Your task to perform on an android device: turn off translation in the chrome app Image 0: 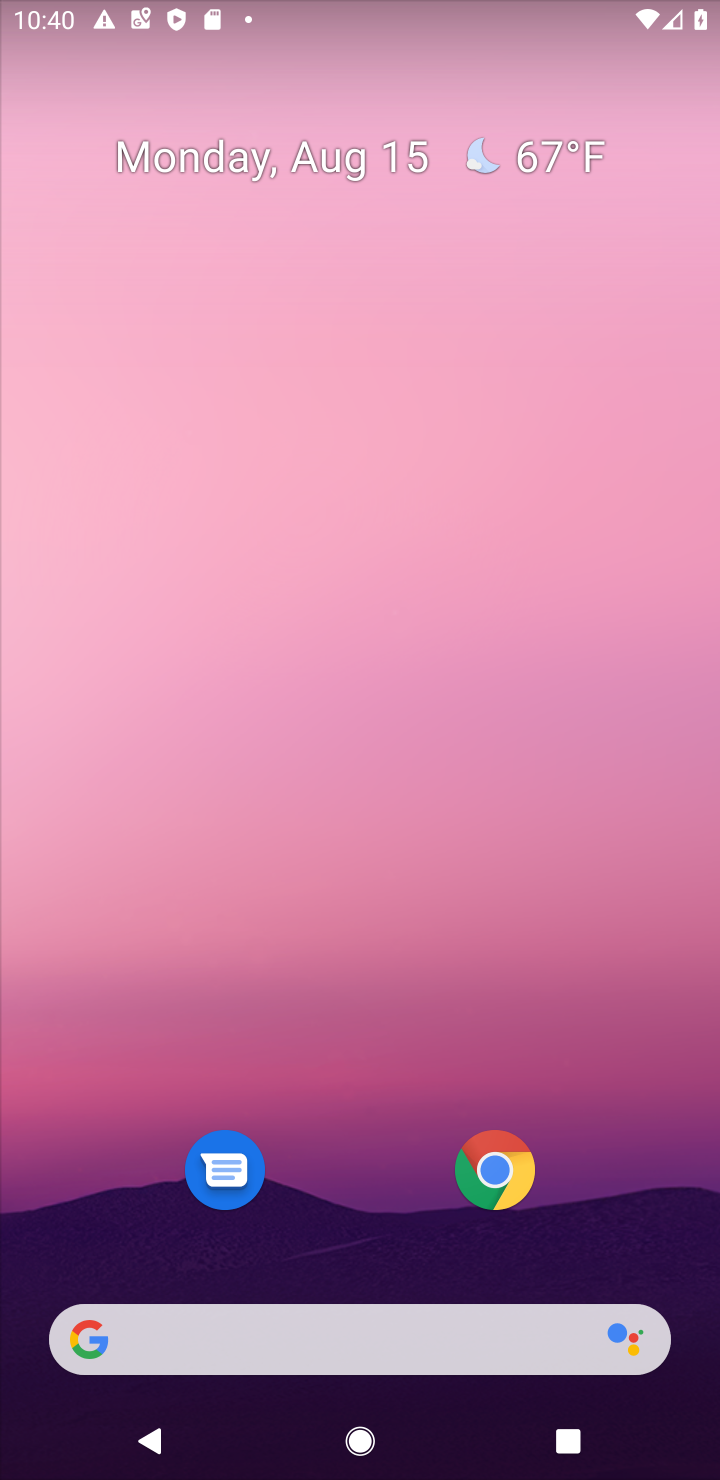
Step 0: drag from (365, 1254) to (387, 153)
Your task to perform on an android device: turn off translation in the chrome app Image 1: 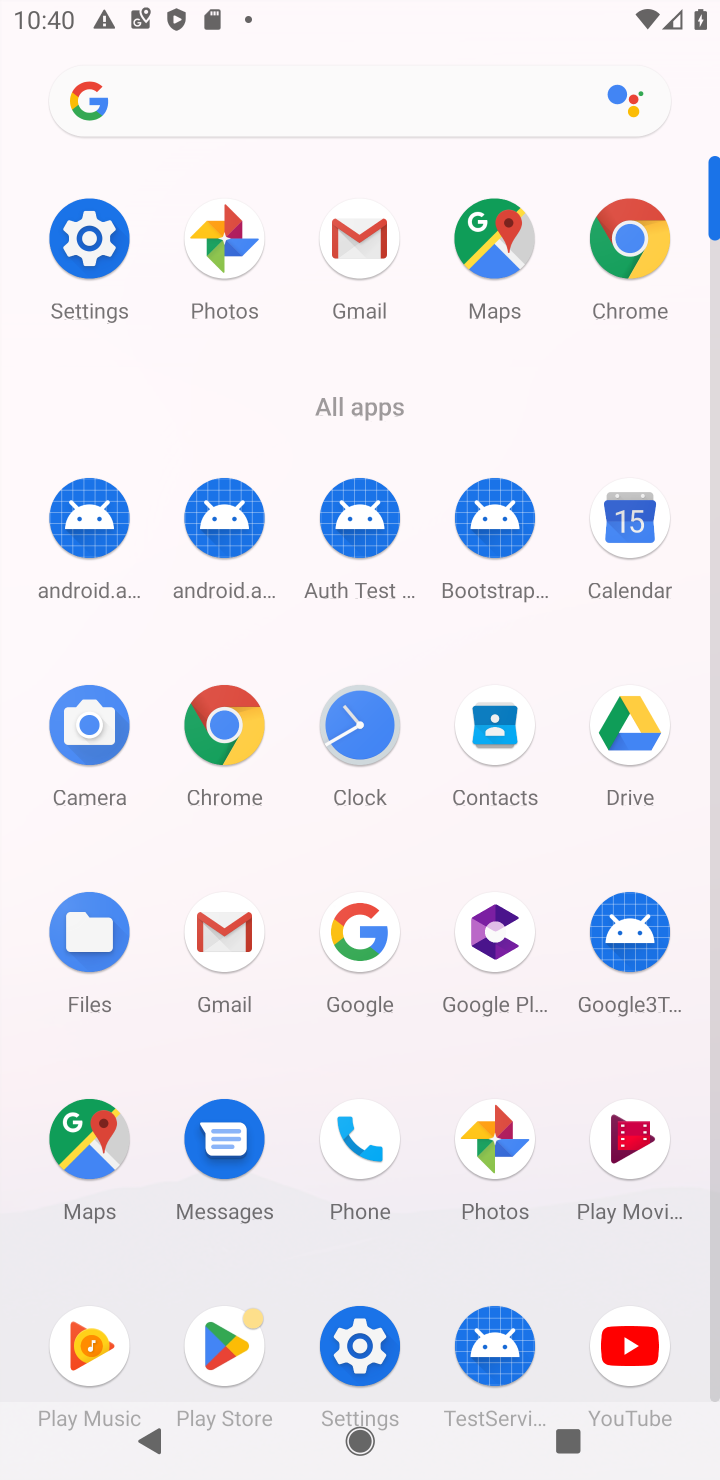
Step 1: click (215, 713)
Your task to perform on an android device: turn off translation in the chrome app Image 2: 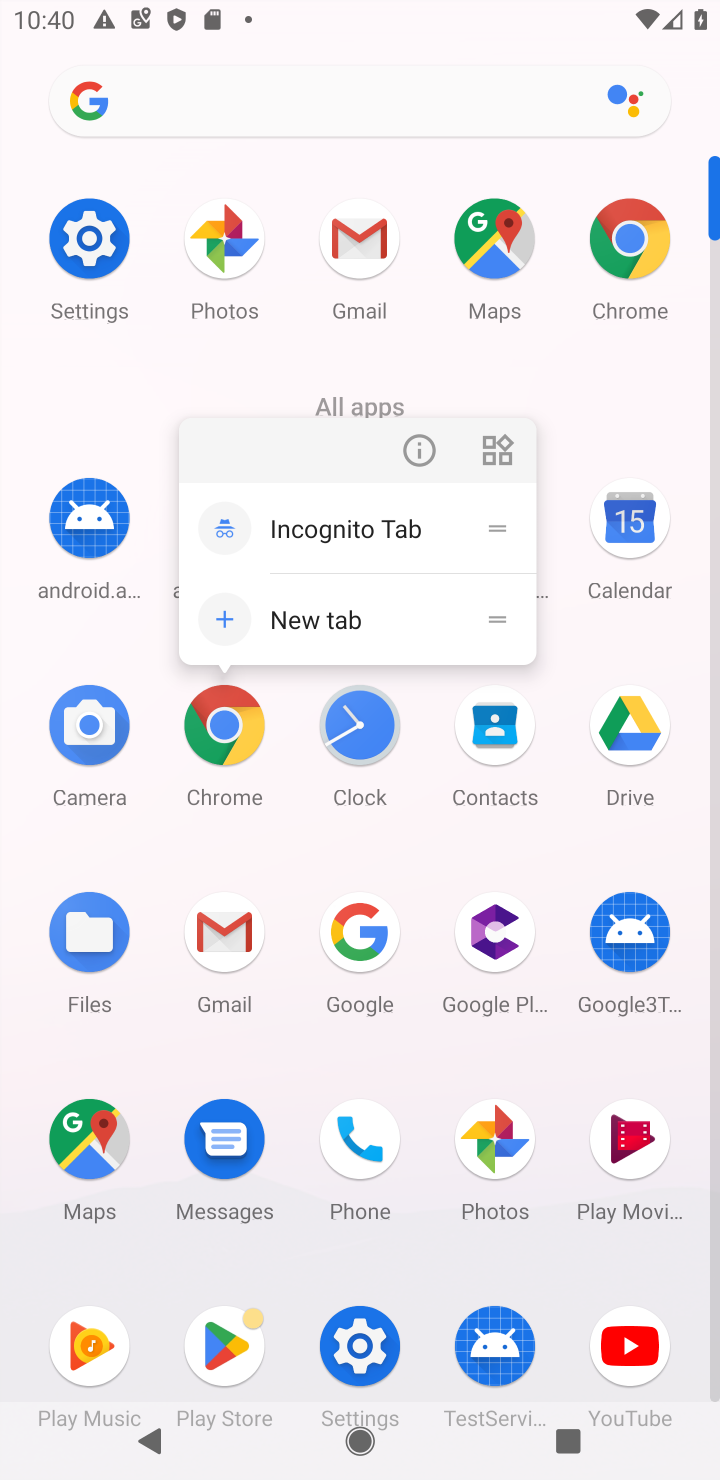
Step 2: click (218, 715)
Your task to perform on an android device: turn off translation in the chrome app Image 3: 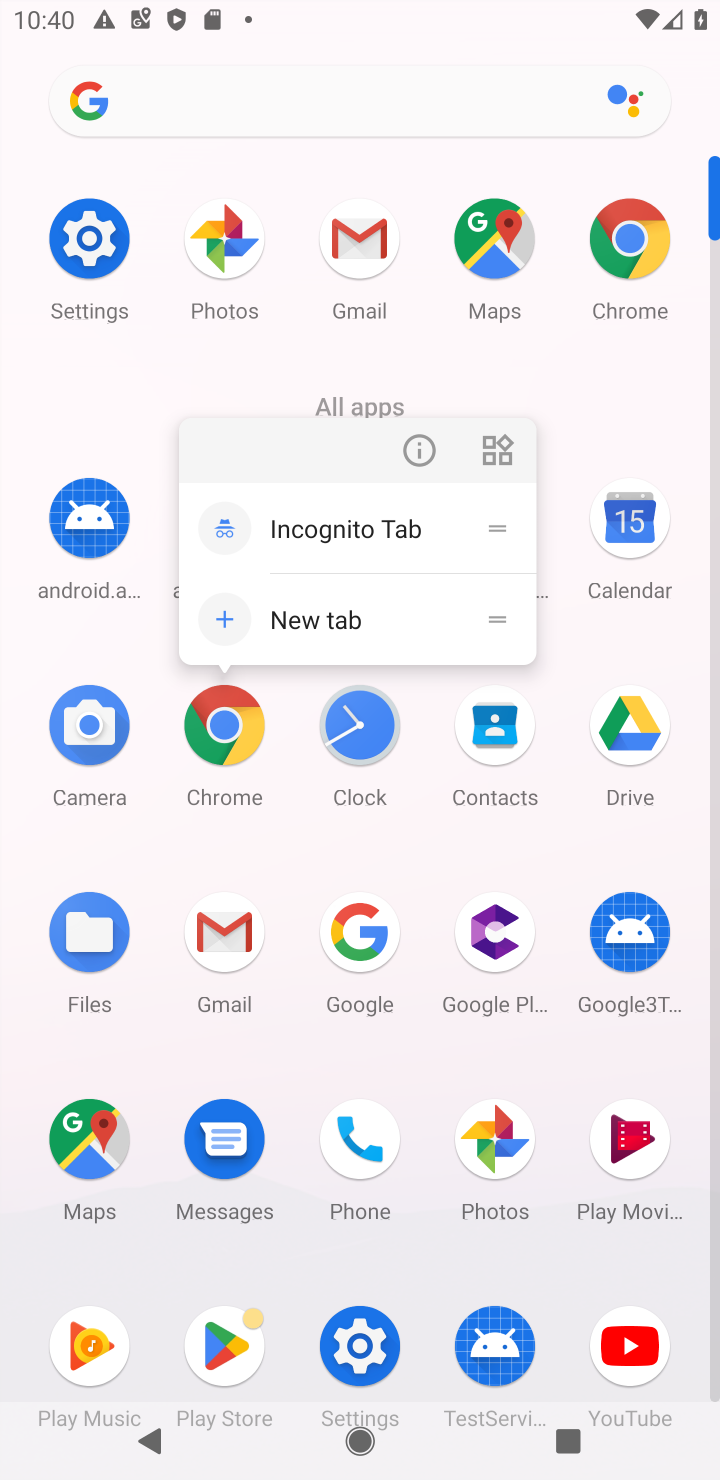
Step 3: click (220, 714)
Your task to perform on an android device: turn off translation in the chrome app Image 4: 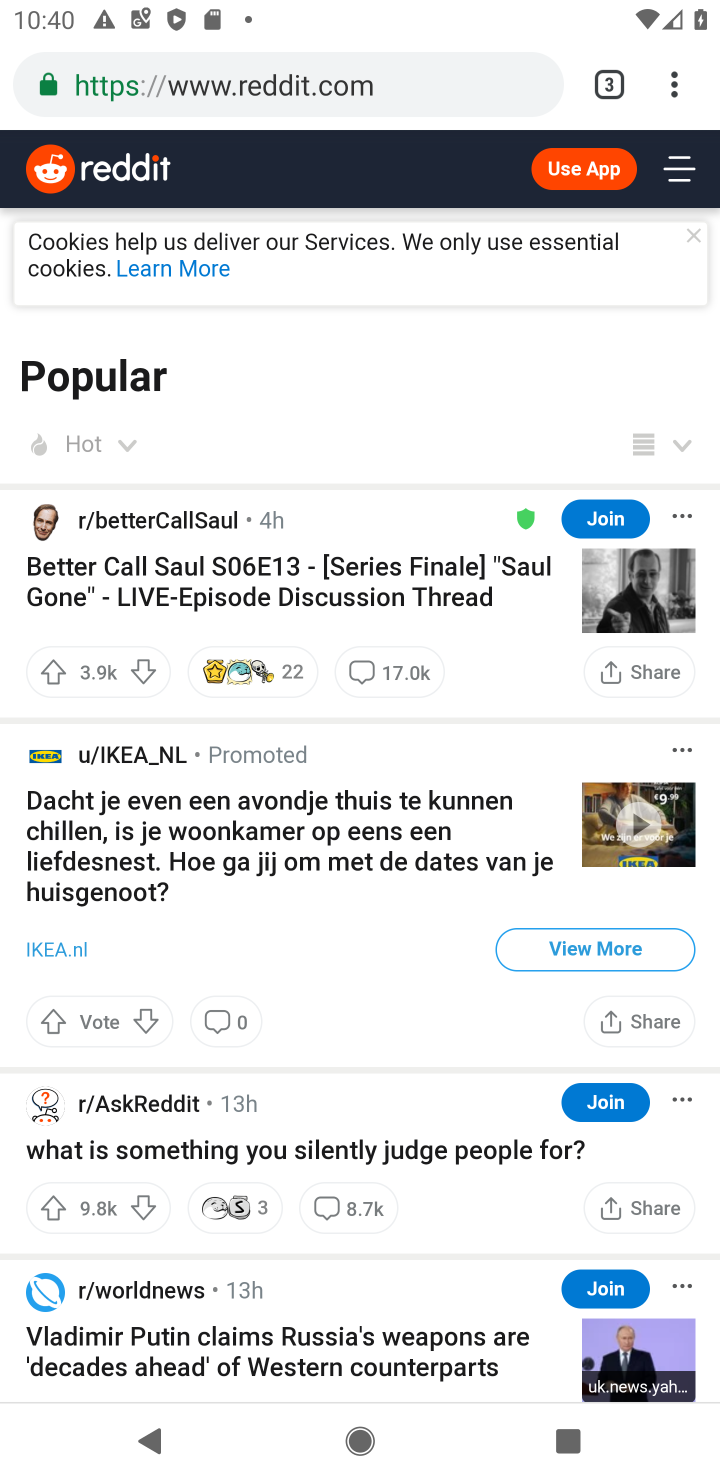
Step 4: click (667, 83)
Your task to perform on an android device: turn off translation in the chrome app Image 5: 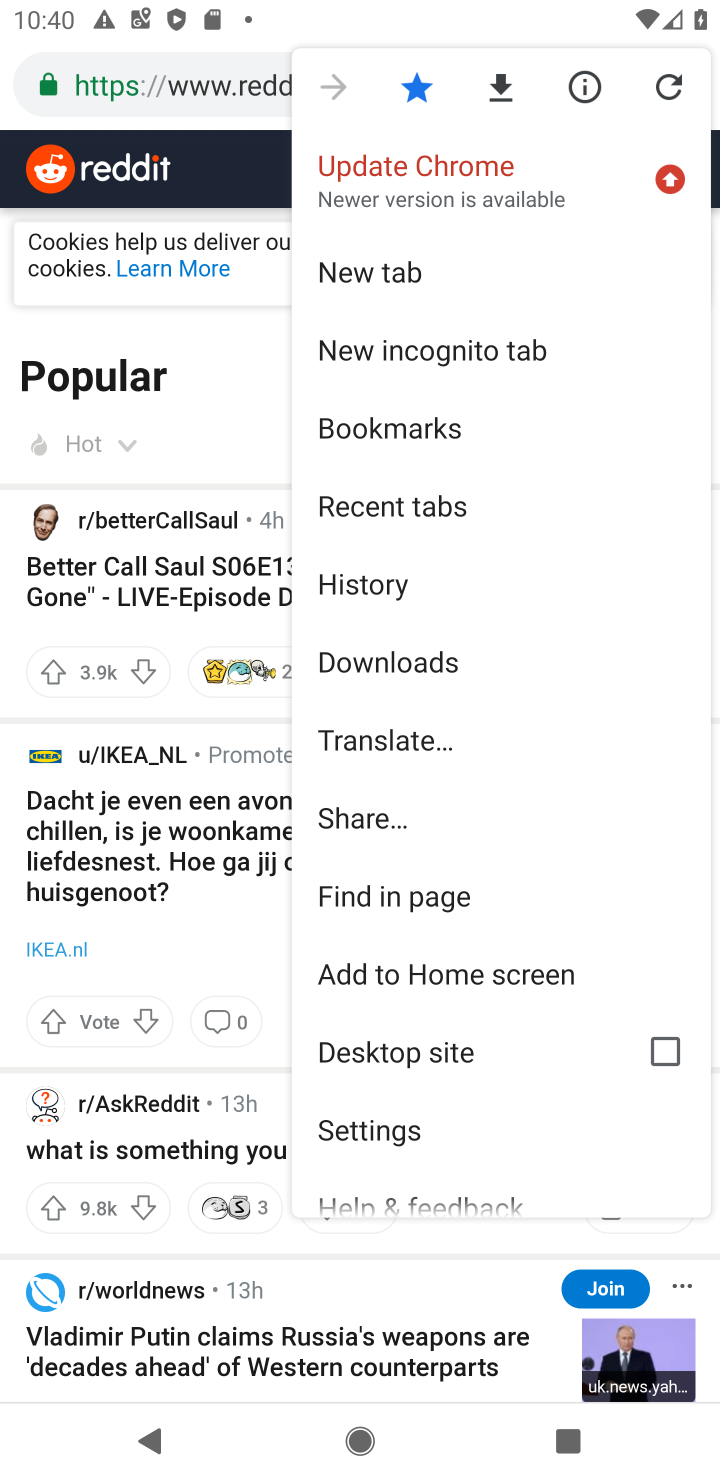
Step 5: click (427, 1124)
Your task to perform on an android device: turn off translation in the chrome app Image 6: 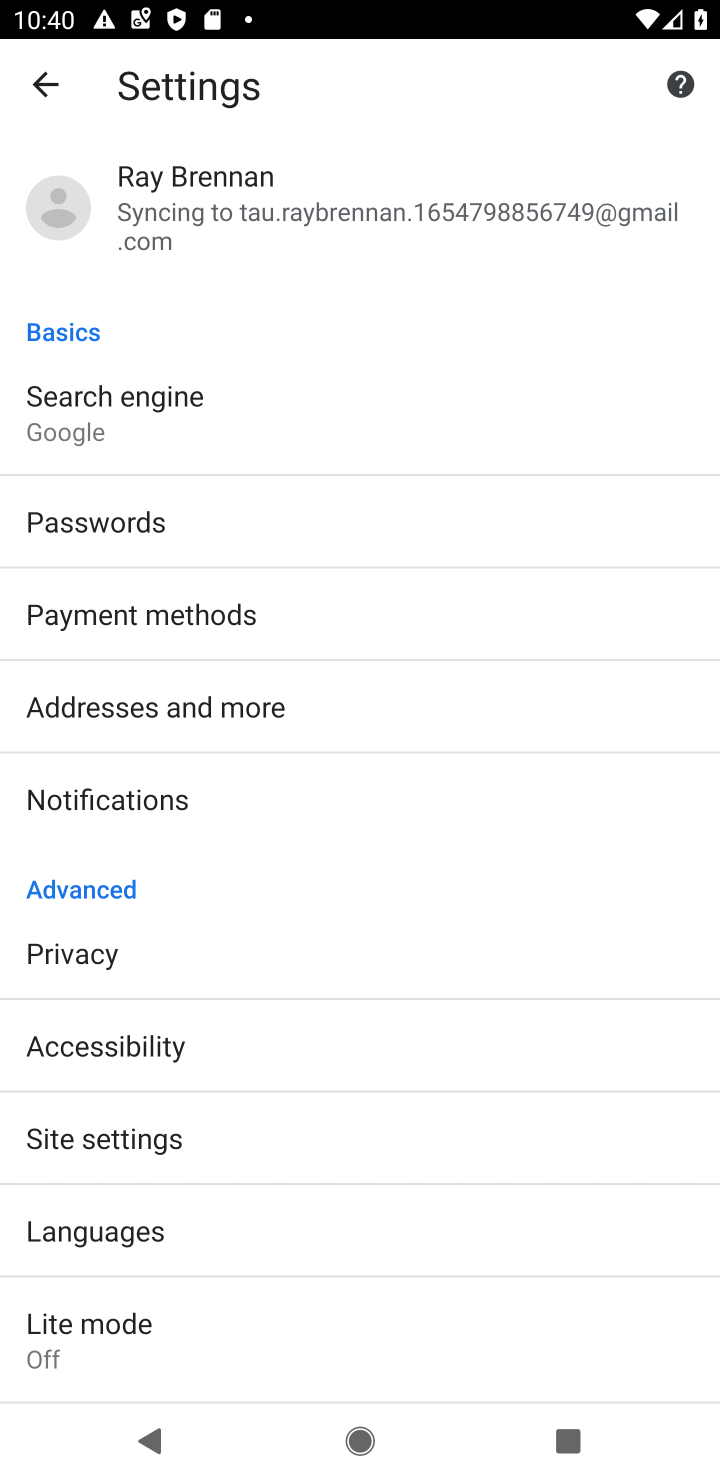
Step 6: click (184, 1222)
Your task to perform on an android device: turn off translation in the chrome app Image 7: 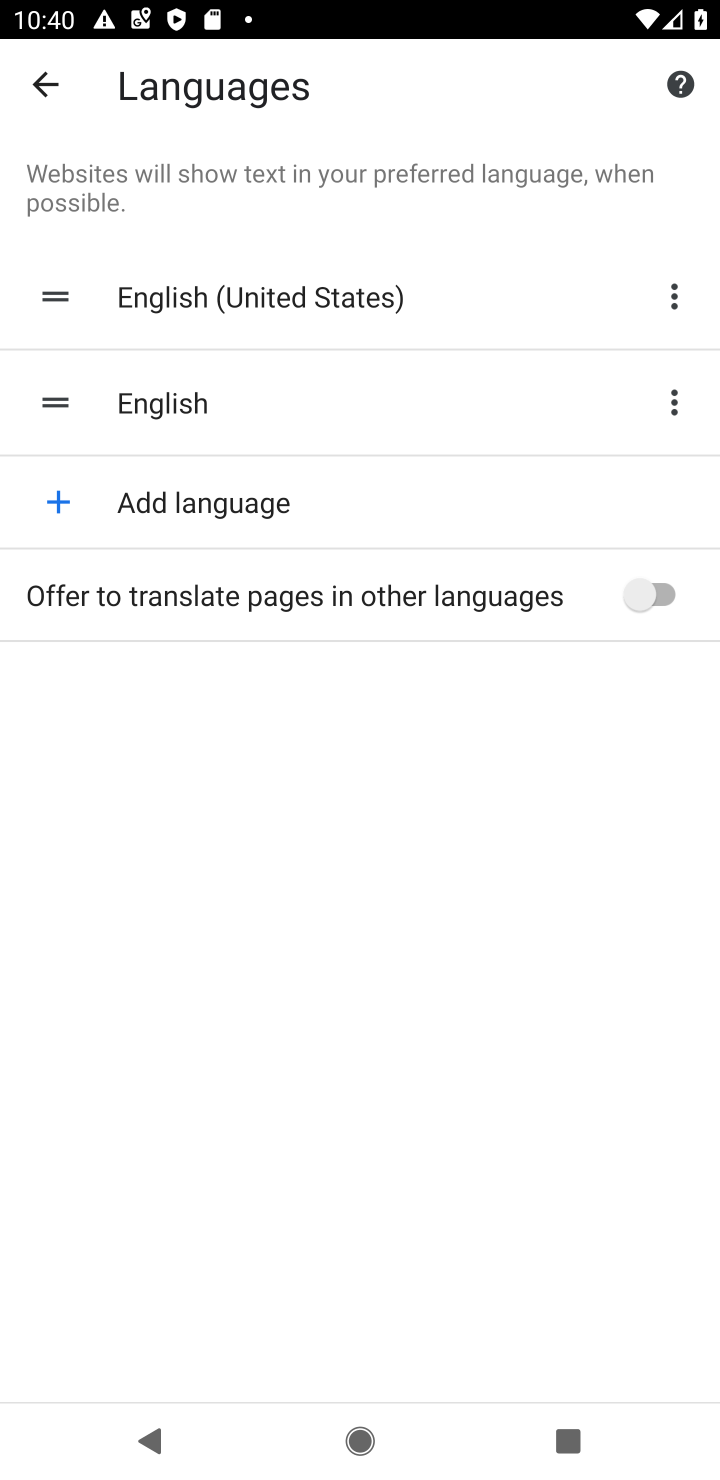
Step 7: task complete